Your task to perform on an android device: Open network settings Image 0: 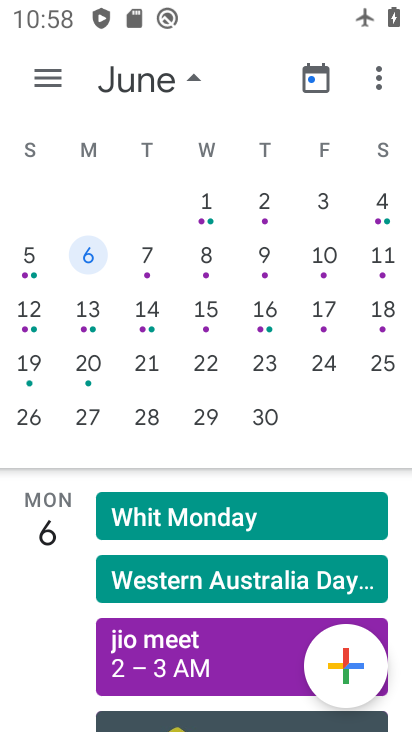
Step 0: press back button
Your task to perform on an android device: Open network settings Image 1: 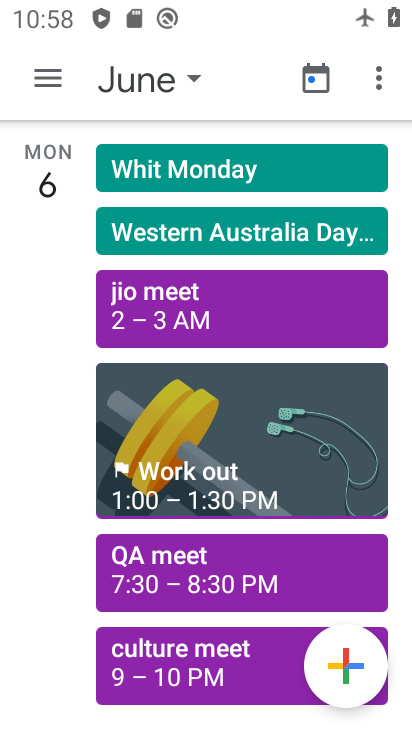
Step 1: press home button
Your task to perform on an android device: Open network settings Image 2: 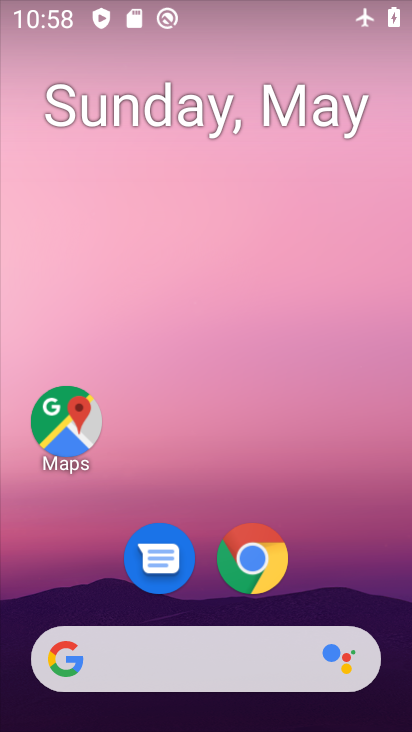
Step 2: drag from (393, 566) to (365, 242)
Your task to perform on an android device: Open network settings Image 3: 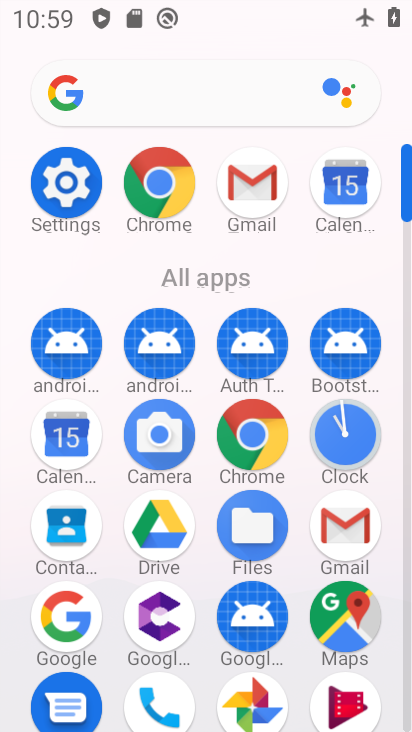
Step 3: click (73, 188)
Your task to perform on an android device: Open network settings Image 4: 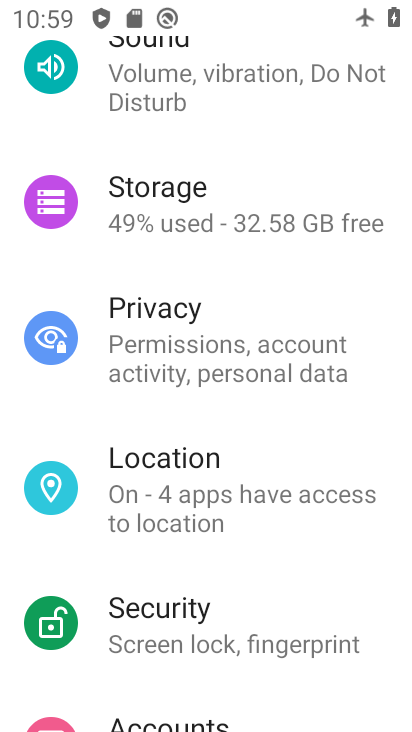
Step 4: drag from (379, 277) to (373, 526)
Your task to perform on an android device: Open network settings Image 5: 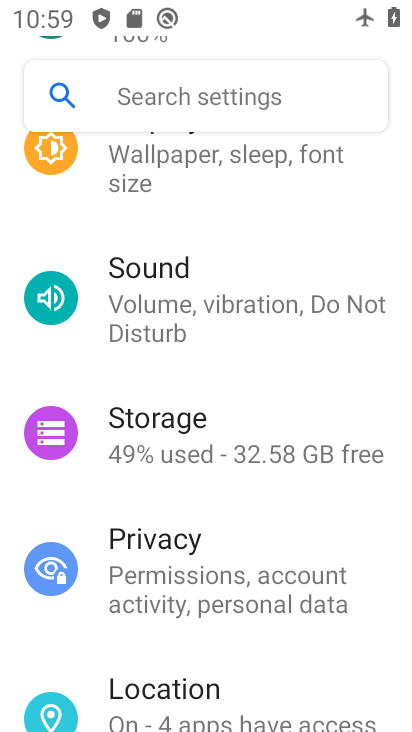
Step 5: drag from (368, 209) to (368, 402)
Your task to perform on an android device: Open network settings Image 6: 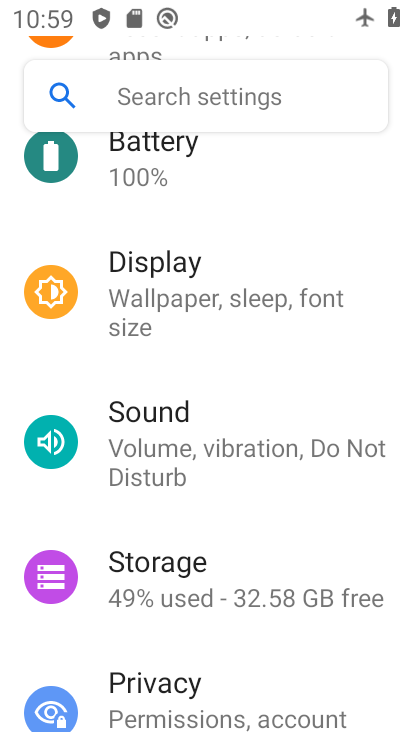
Step 6: drag from (353, 183) to (354, 407)
Your task to perform on an android device: Open network settings Image 7: 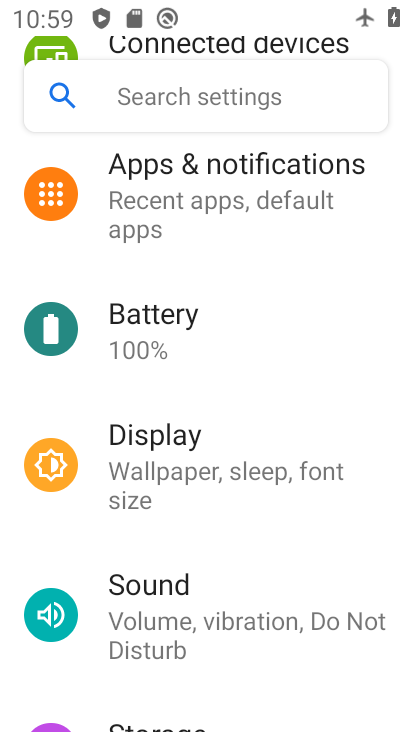
Step 7: drag from (351, 238) to (342, 466)
Your task to perform on an android device: Open network settings Image 8: 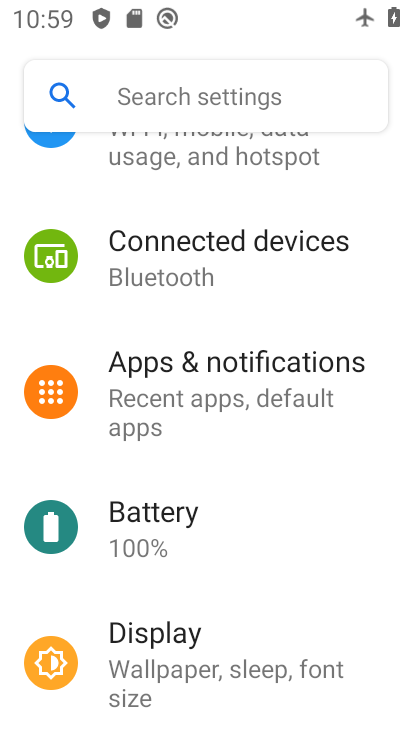
Step 8: drag from (354, 274) to (335, 535)
Your task to perform on an android device: Open network settings Image 9: 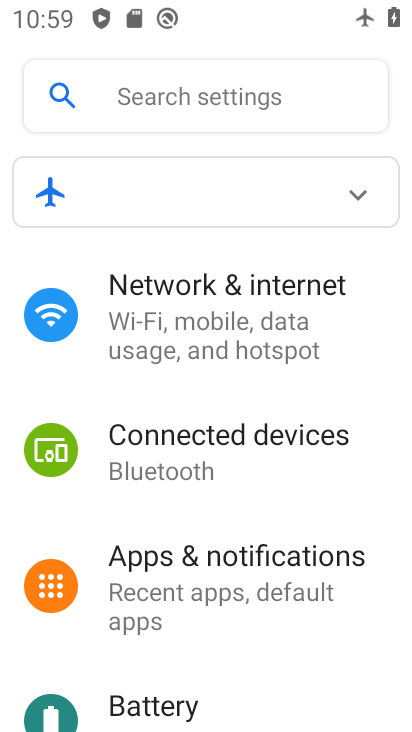
Step 9: click (268, 305)
Your task to perform on an android device: Open network settings Image 10: 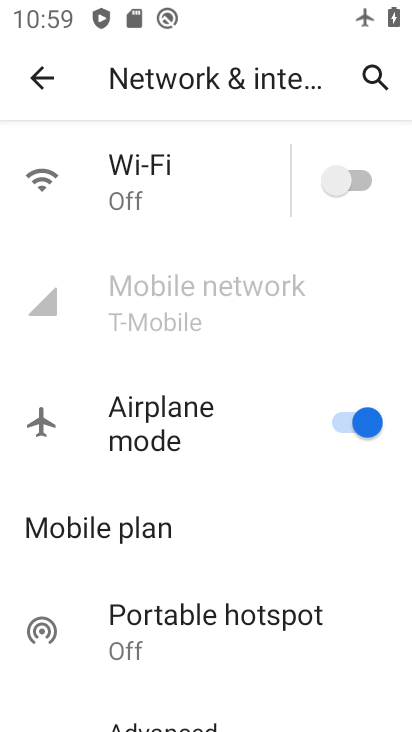
Step 10: task complete